Your task to perform on an android device: Open the Play Movies app and select the watchlist tab. Image 0: 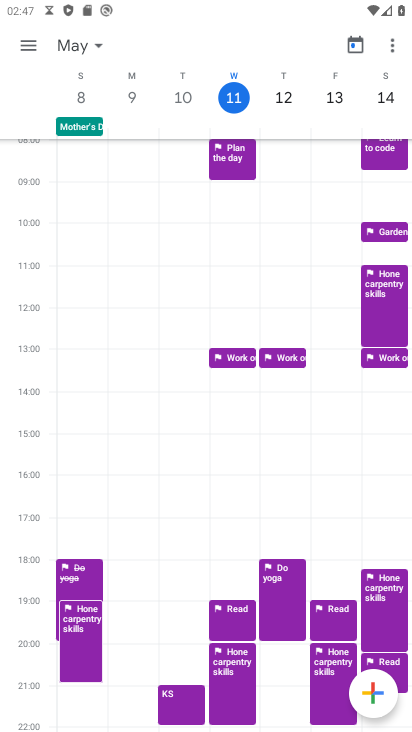
Step 0: press home button
Your task to perform on an android device: Open the Play Movies app and select the watchlist tab. Image 1: 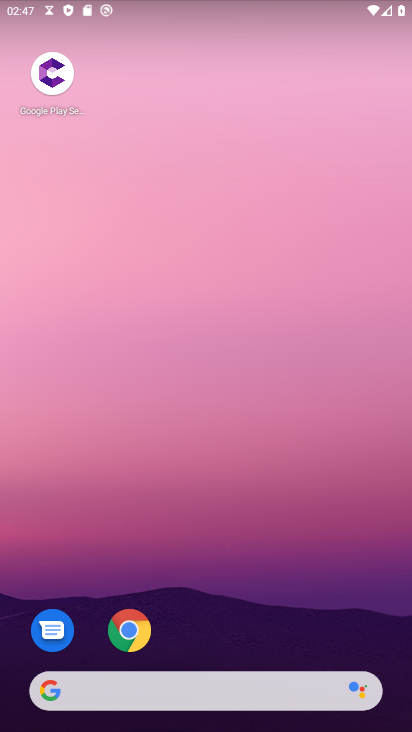
Step 1: drag from (218, 726) to (218, 120)
Your task to perform on an android device: Open the Play Movies app and select the watchlist tab. Image 2: 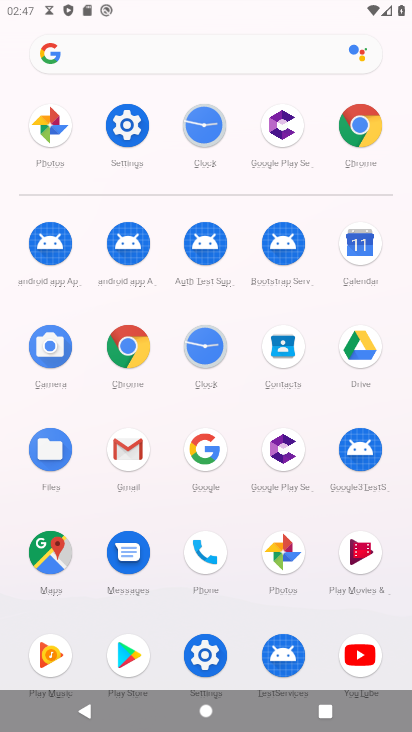
Step 2: click (367, 549)
Your task to perform on an android device: Open the Play Movies app and select the watchlist tab. Image 3: 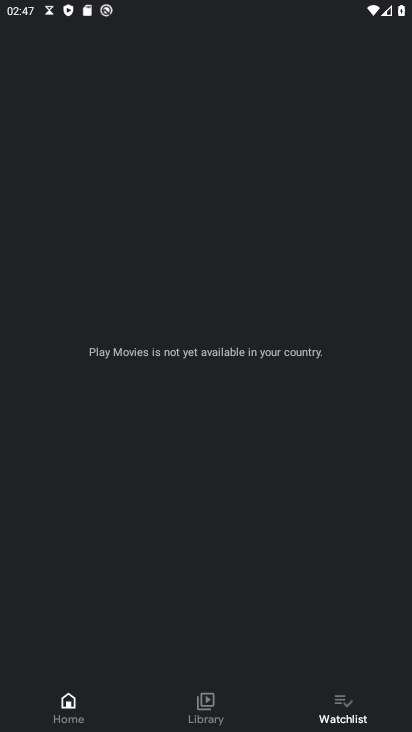
Step 3: click (340, 707)
Your task to perform on an android device: Open the Play Movies app and select the watchlist tab. Image 4: 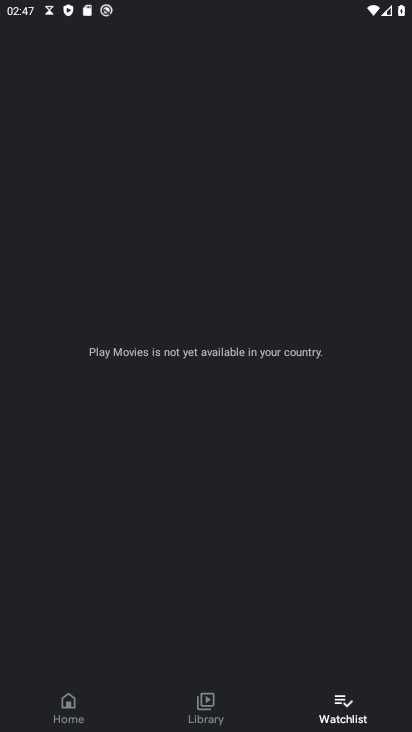
Step 4: task complete